Your task to perform on an android device: open the mobile data screen to see how much data has been used Image 0: 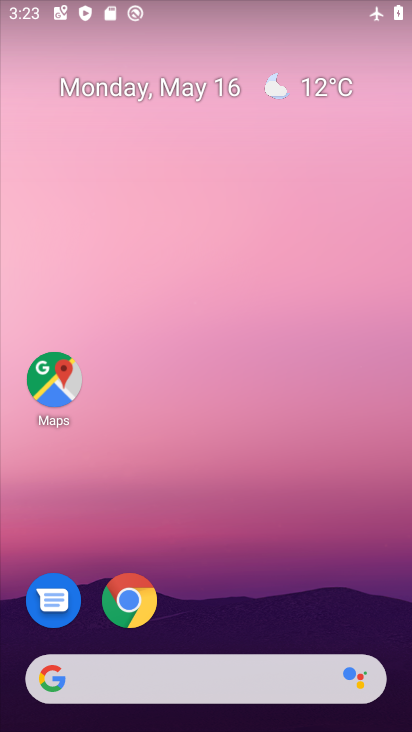
Step 0: drag from (227, 659) to (180, 6)
Your task to perform on an android device: open the mobile data screen to see how much data has been used Image 1: 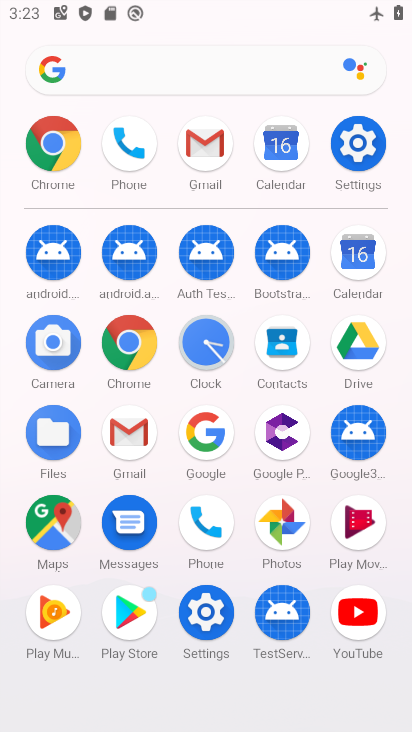
Step 1: click (357, 152)
Your task to perform on an android device: open the mobile data screen to see how much data has been used Image 2: 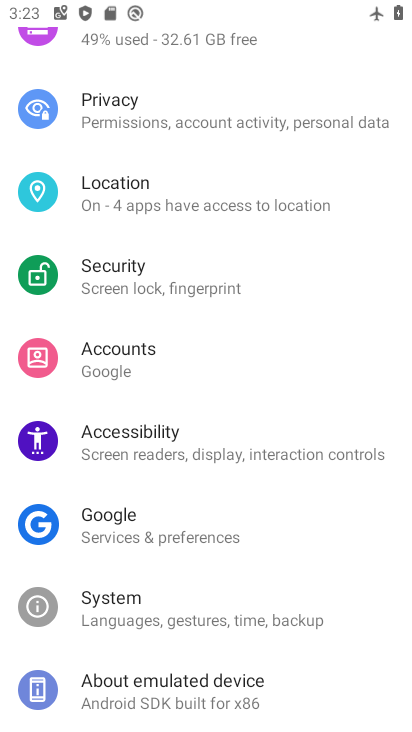
Step 2: drag from (209, 176) to (153, 716)
Your task to perform on an android device: open the mobile data screen to see how much data has been used Image 3: 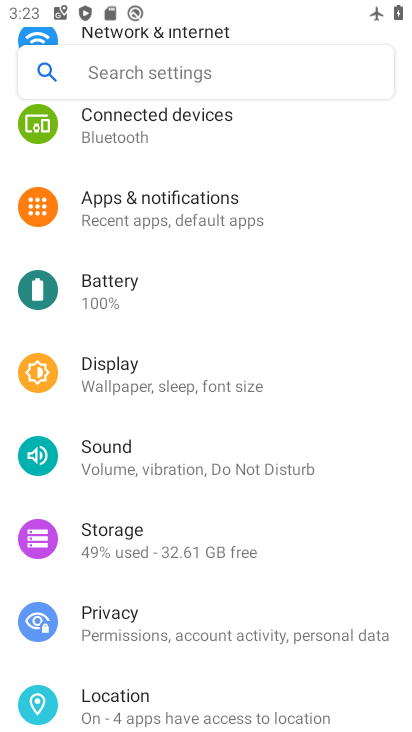
Step 3: drag from (133, 194) to (135, 561)
Your task to perform on an android device: open the mobile data screen to see how much data has been used Image 4: 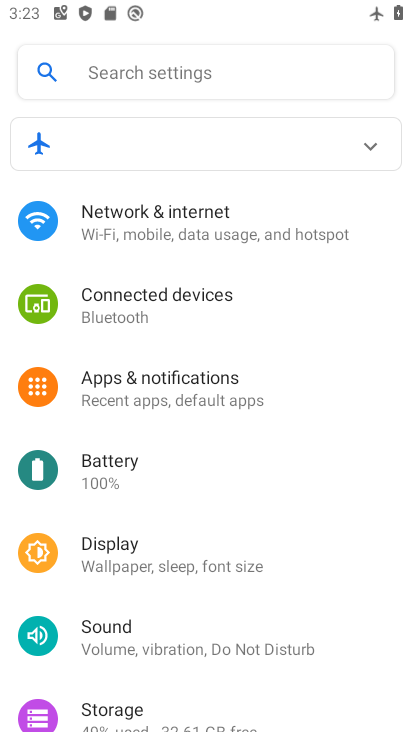
Step 4: click (139, 230)
Your task to perform on an android device: open the mobile data screen to see how much data has been used Image 5: 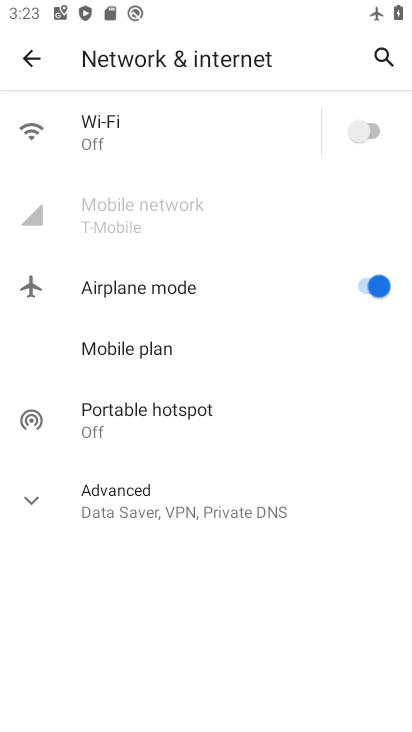
Step 5: click (169, 212)
Your task to perform on an android device: open the mobile data screen to see how much data has been used Image 6: 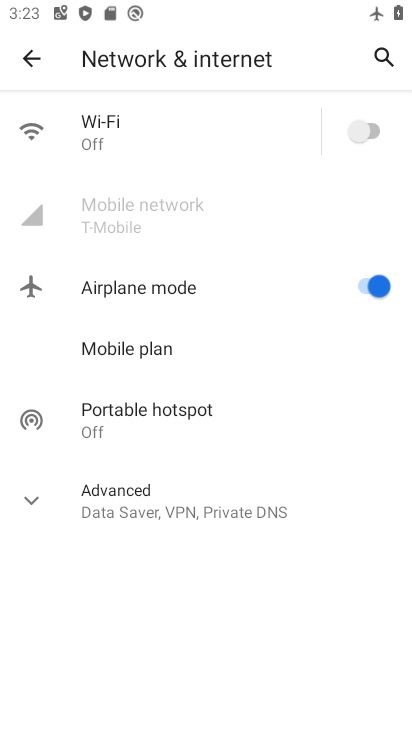
Step 6: task complete